Your task to perform on an android device: snooze an email in the gmail app Image 0: 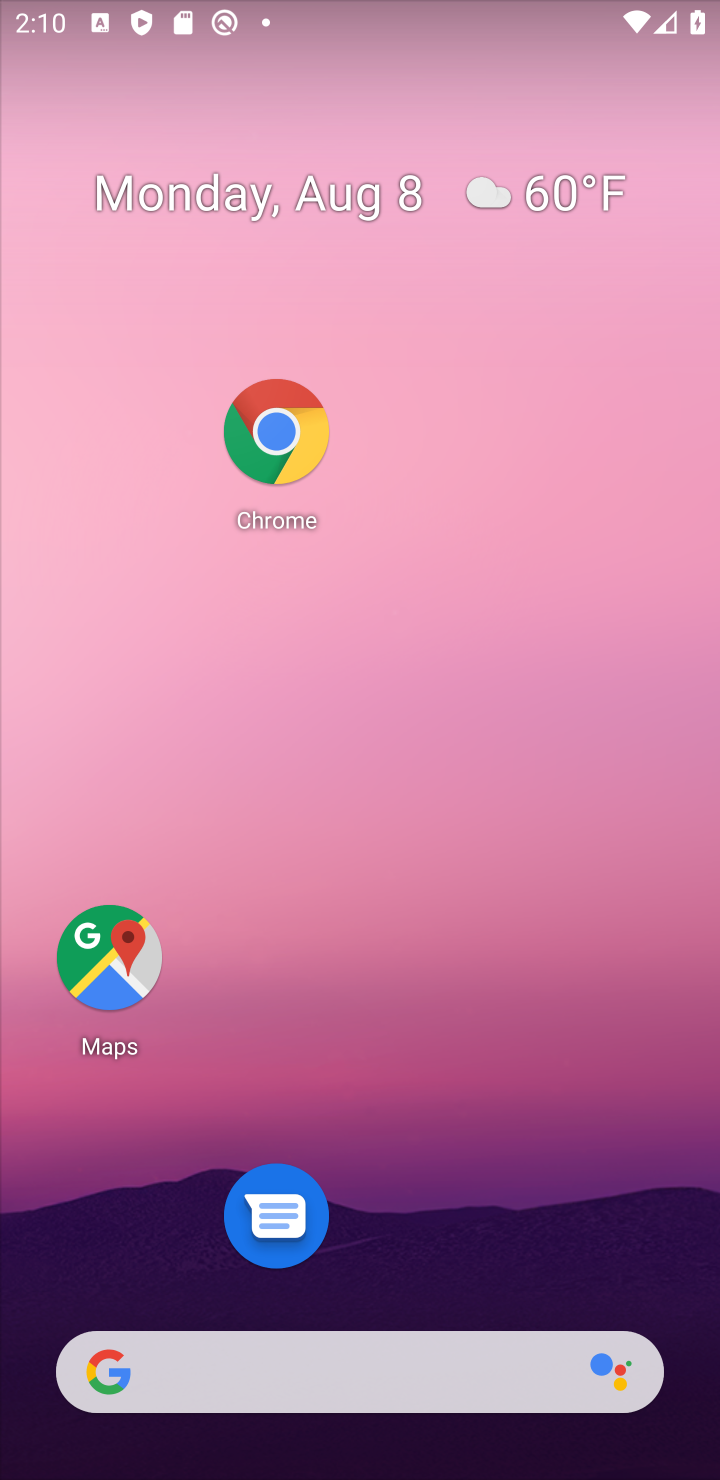
Step 0: drag from (418, 1197) to (611, 102)
Your task to perform on an android device: snooze an email in the gmail app Image 1: 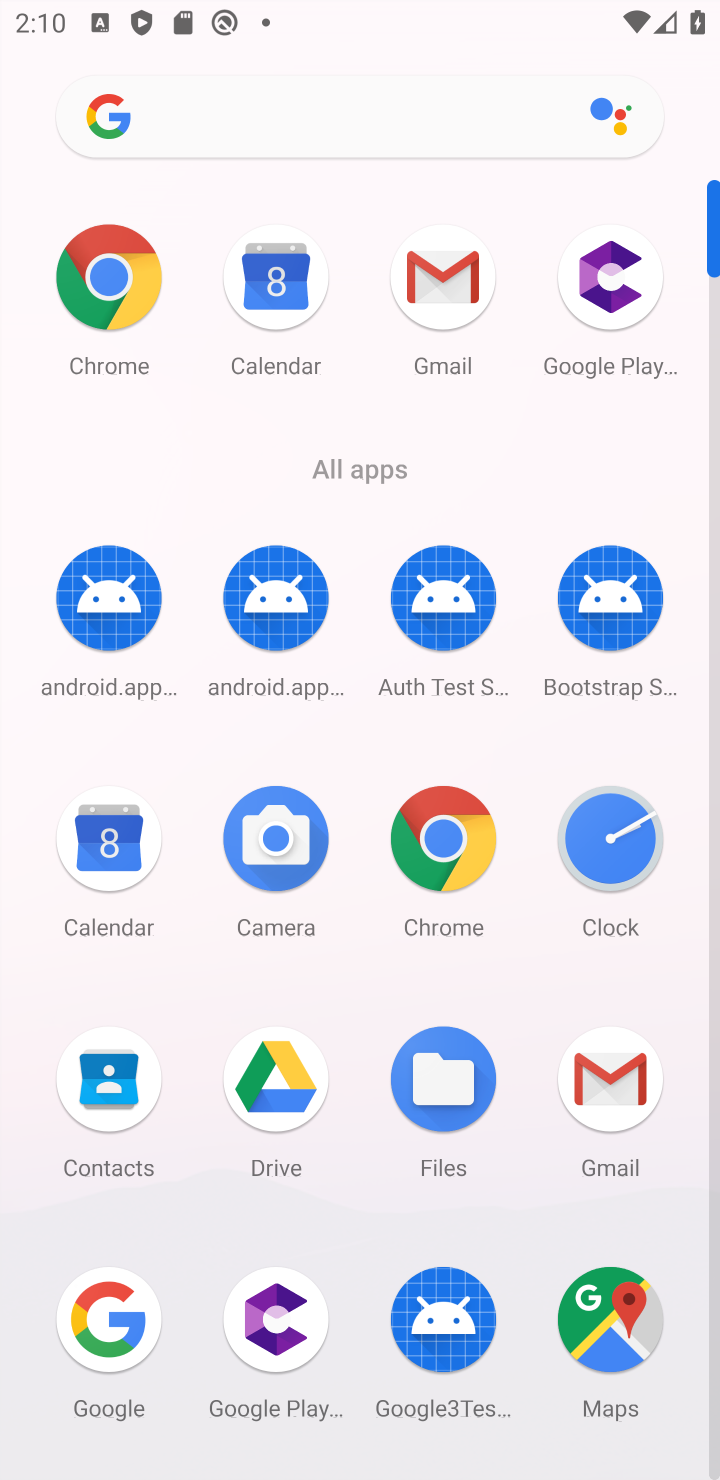
Step 1: click (605, 1089)
Your task to perform on an android device: snooze an email in the gmail app Image 2: 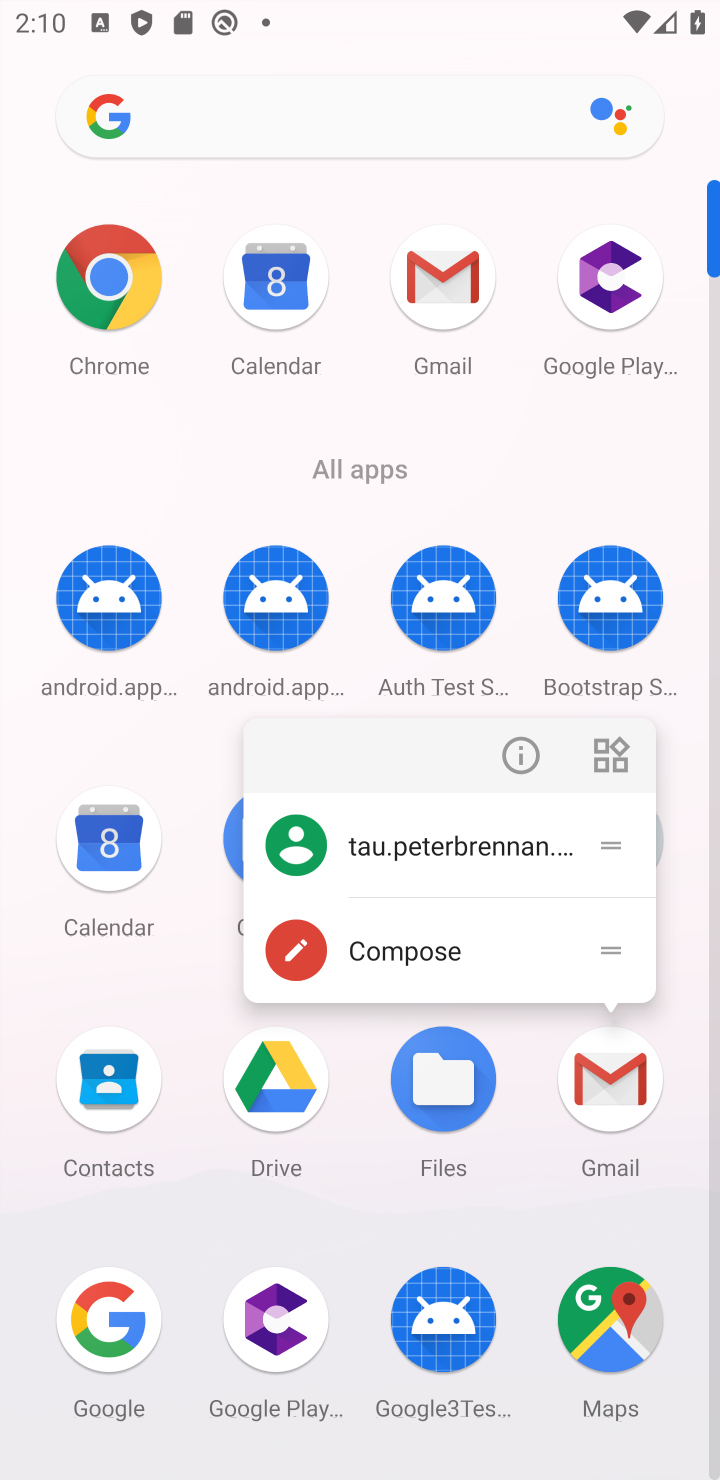
Step 2: click (452, 340)
Your task to perform on an android device: snooze an email in the gmail app Image 3: 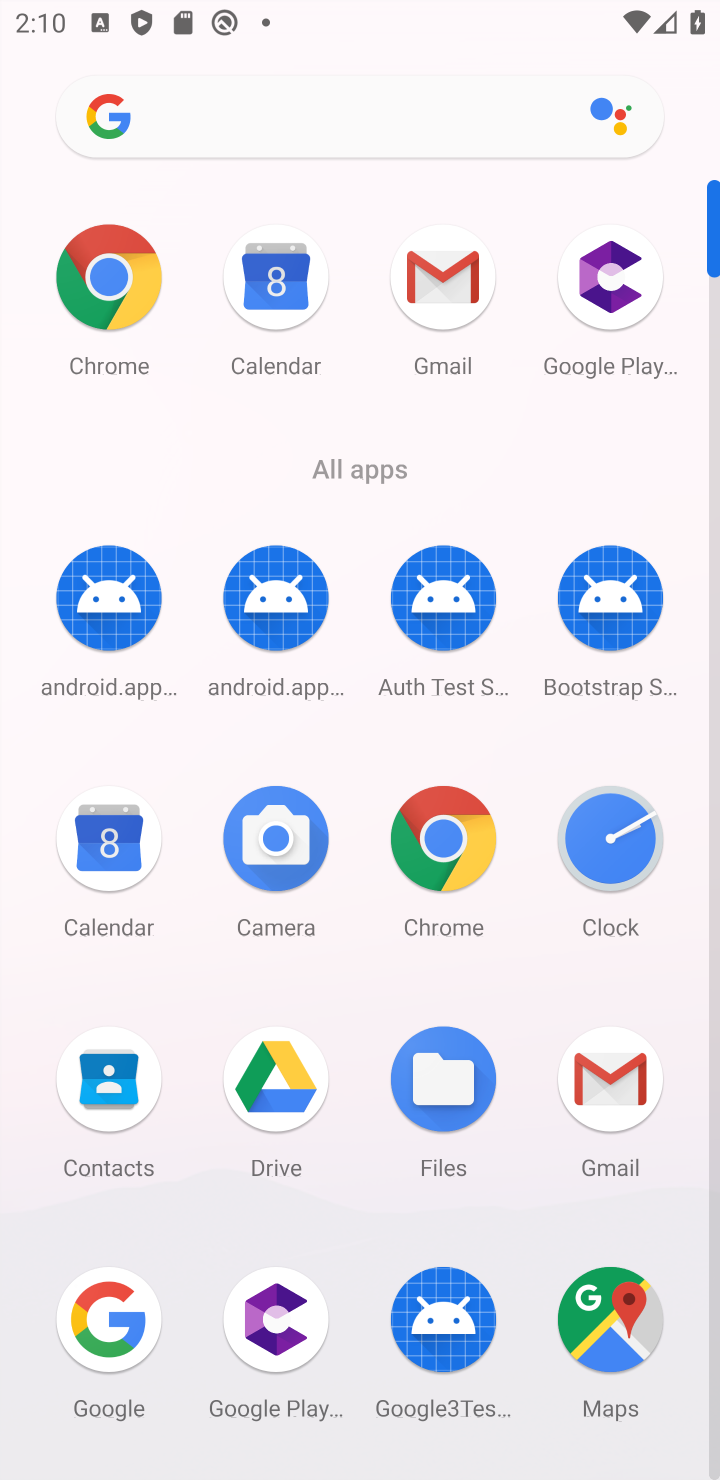
Step 3: click (452, 340)
Your task to perform on an android device: snooze an email in the gmail app Image 4: 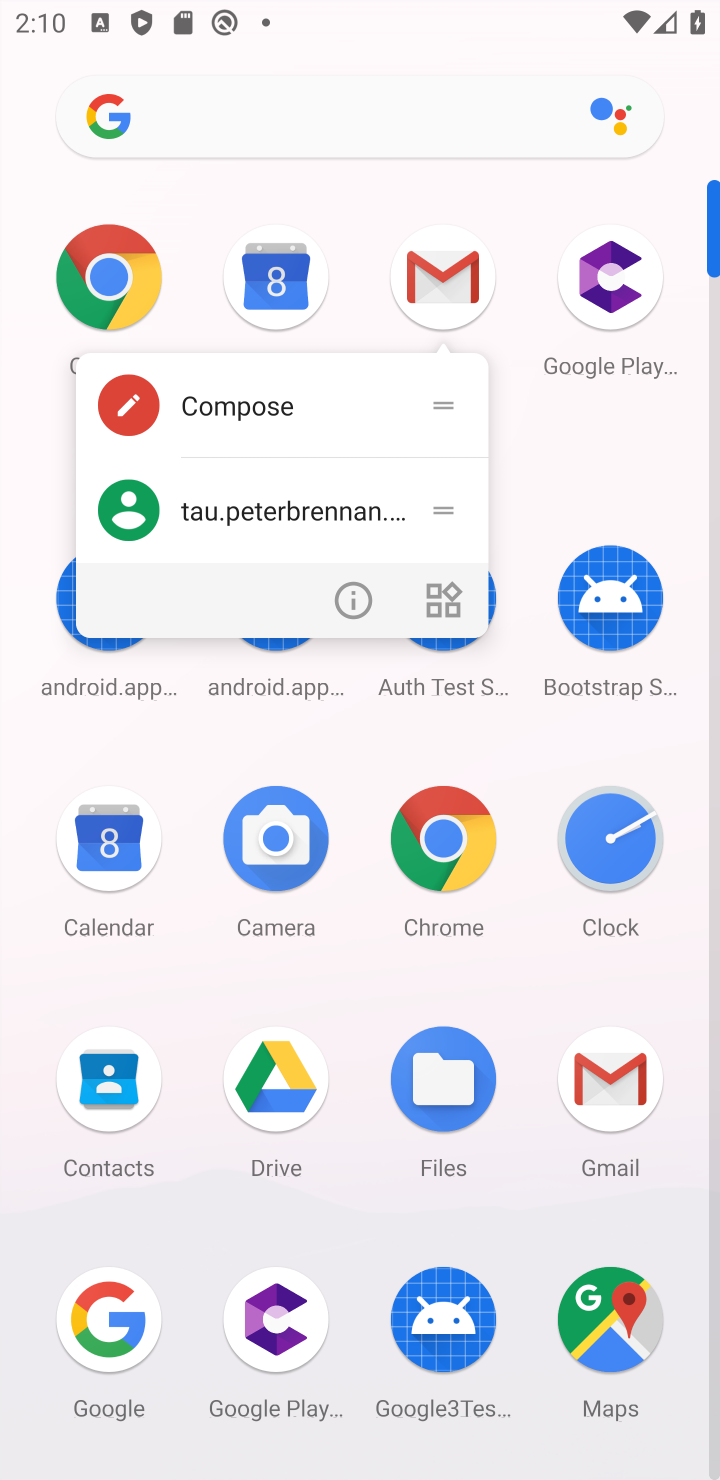
Step 4: click (446, 238)
Your task to perform on an android device: snooze an email in the gmail app Image 5: 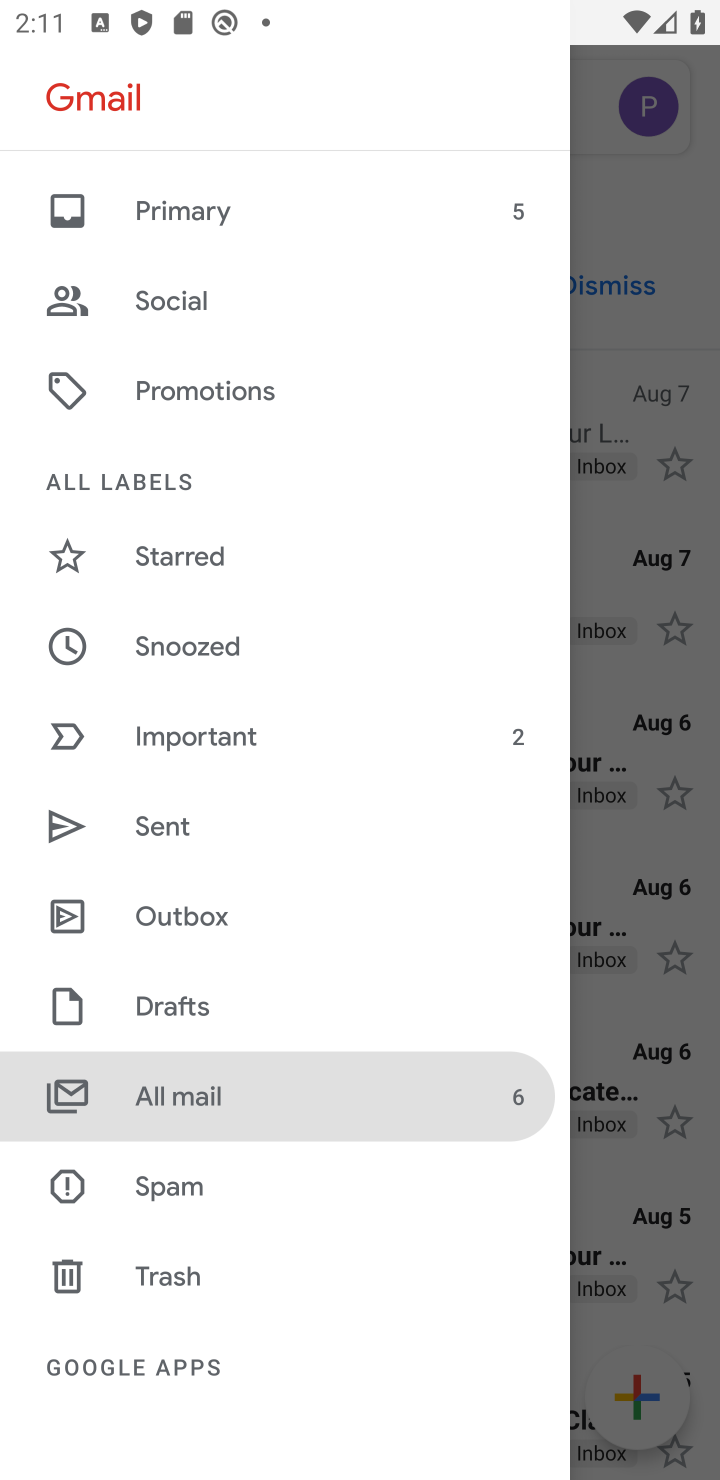
Step 5: click (247, 1104)
Your task to perform on an android device: snooze an email in the gmail app Image 6: 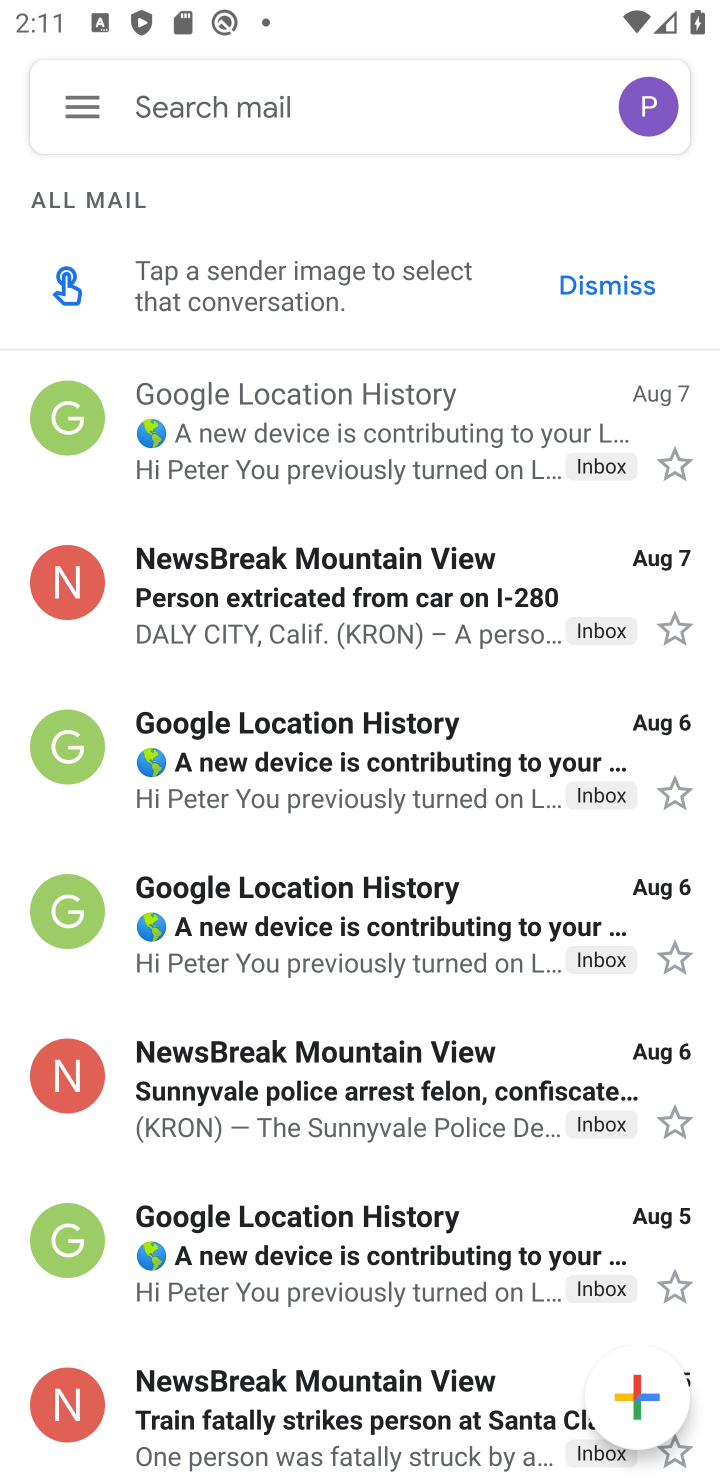
Step 6: click (329, 608)
Your task to perform on an android device: snooze an email in the gmail app Image 7: 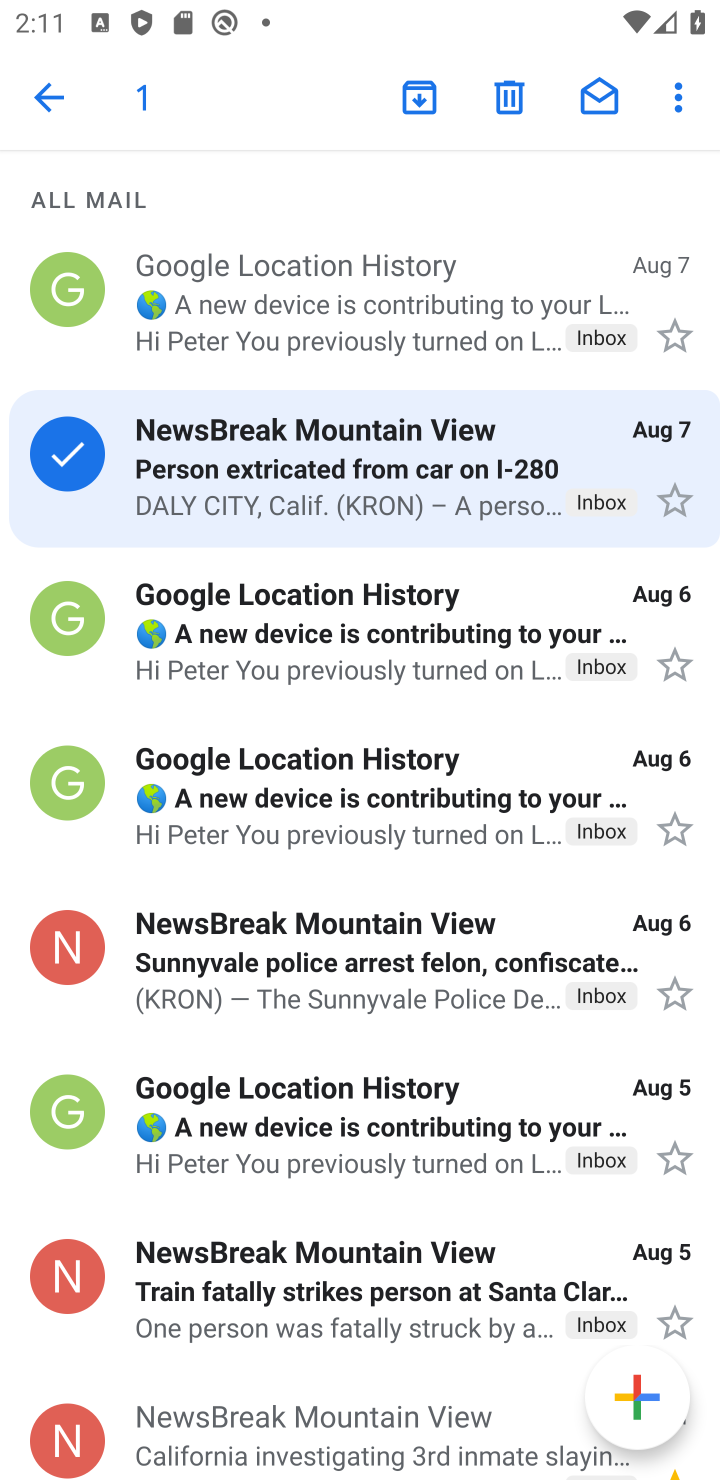
Step 7: click (678, 103)
Your task to perform on an android device: snooze an email in the gmail app Image 8: 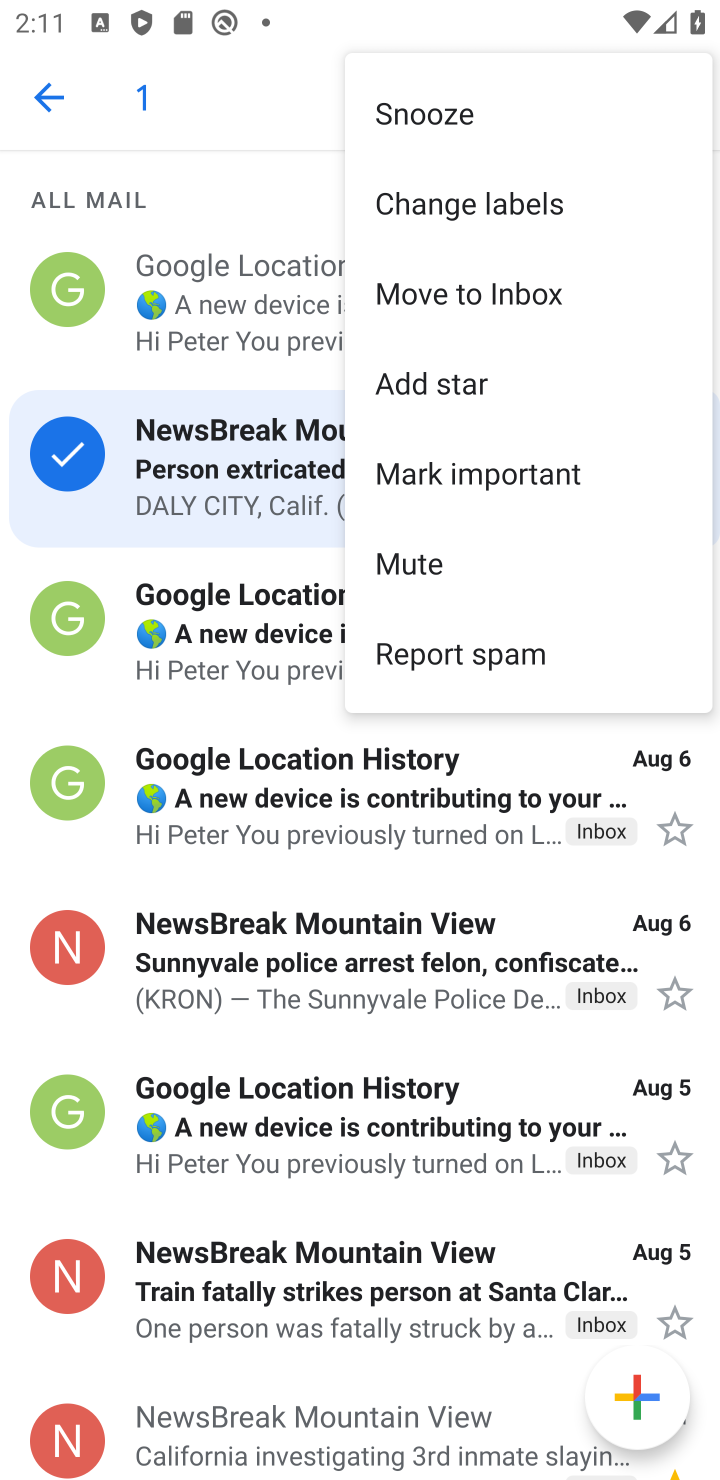
Step 8: click (434, 86)
Your task to perform on an android device: snooze an email in the gmail app Image 9: 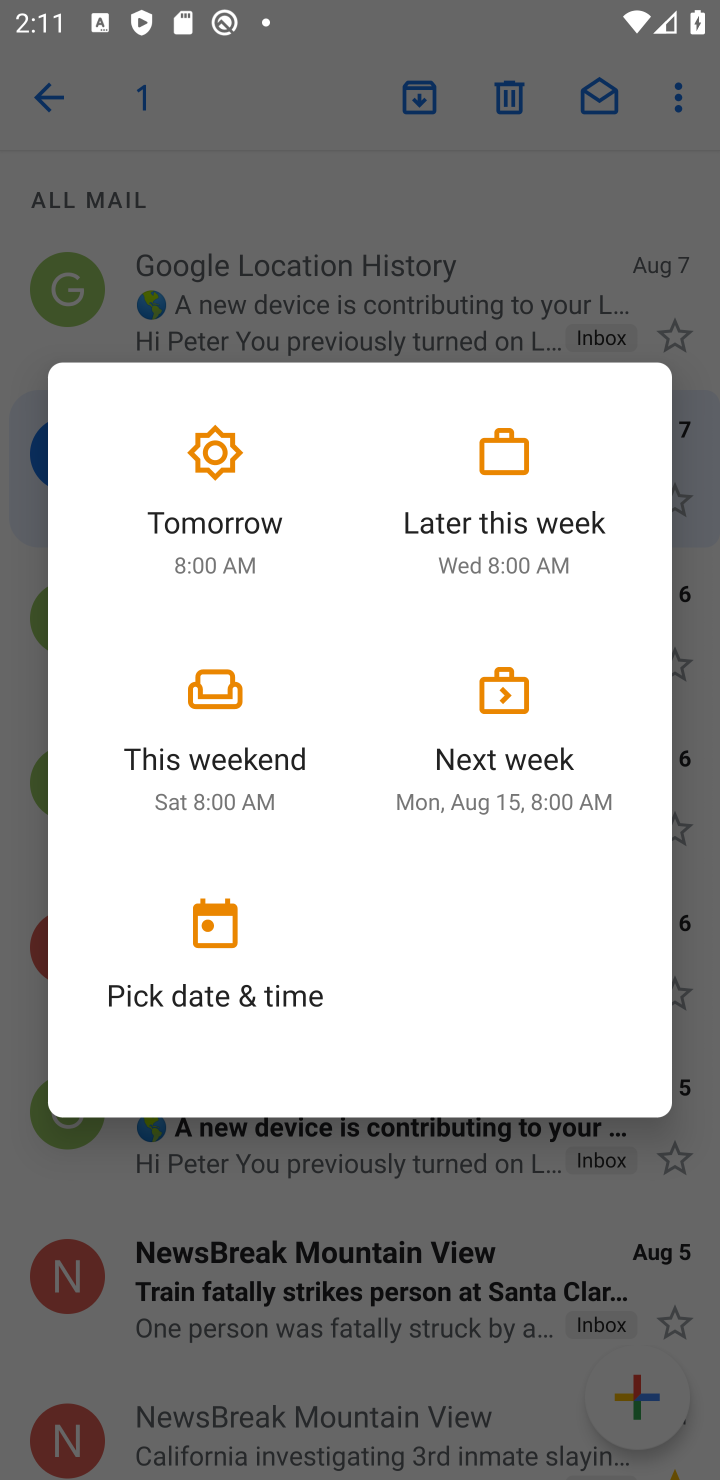
Step 9: click (167, 533)
Your task to perform on an android device: snooze an email in the gmail app Image 10: 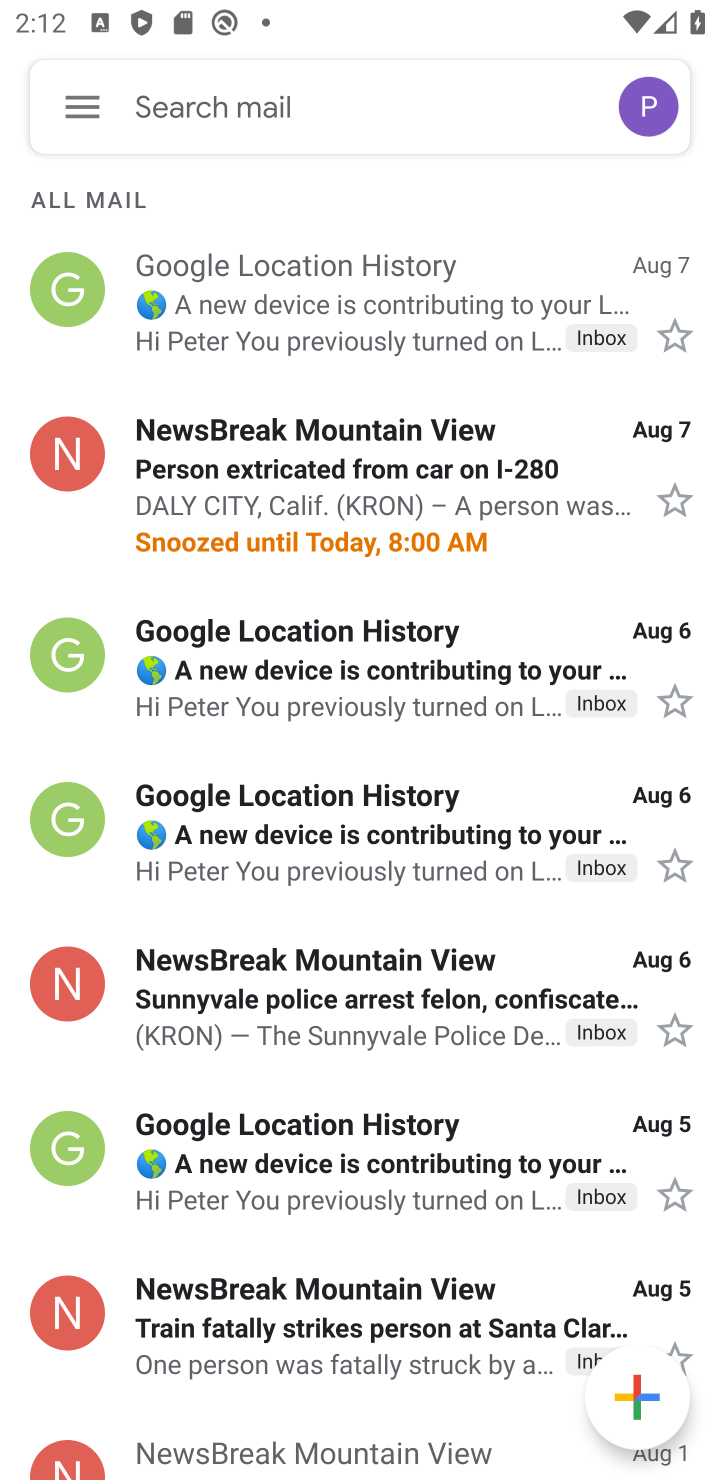
Step 10: task complete